Your task to perform on an android device: Empty the shopping cart on amazon. Image 0: 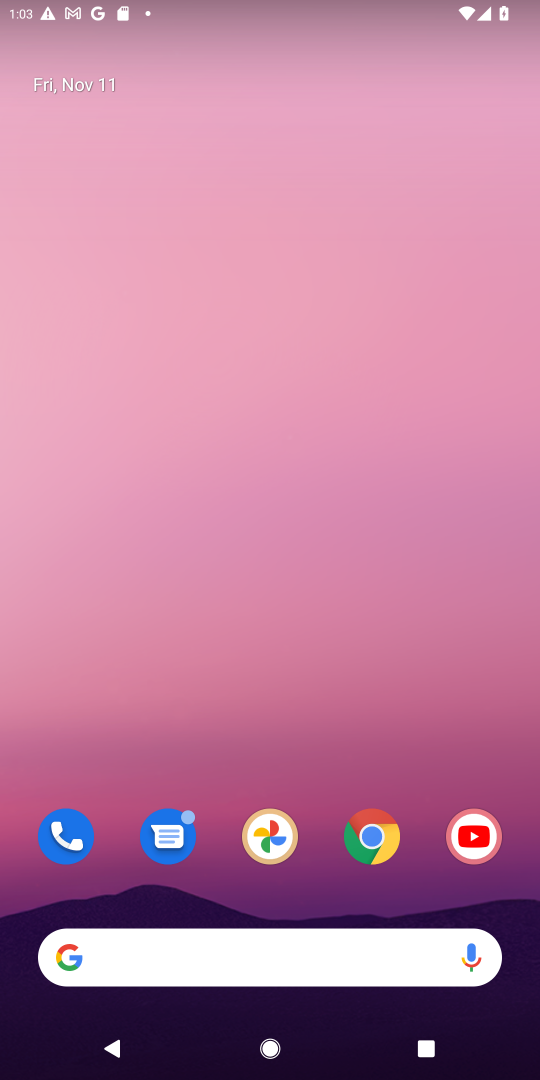
Step 0: click (254, 943)
Your task to perform on an android device: Empty the shopping cart on amazon. Image 1: 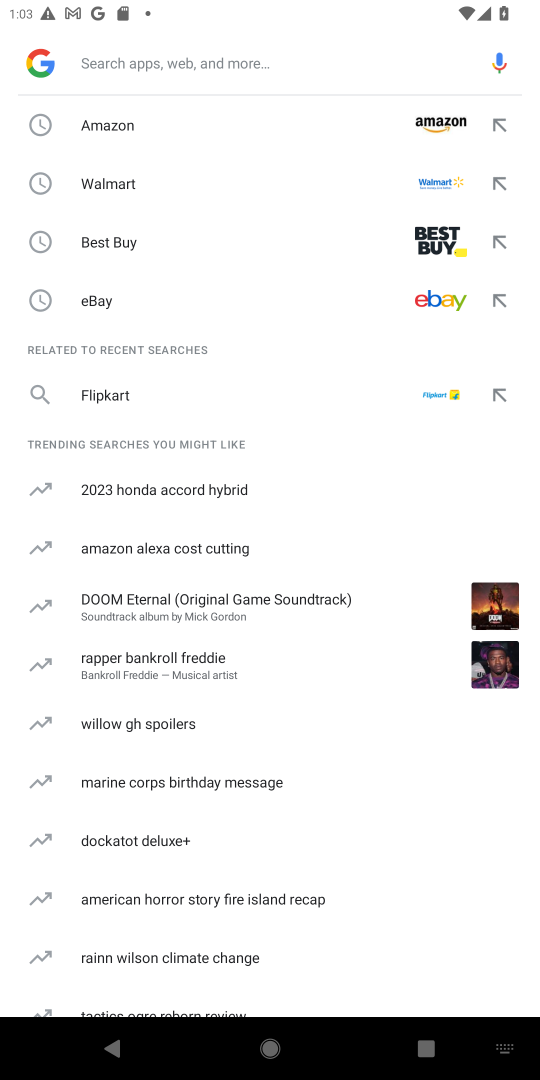
Step 1: click (233, 138)
Your task to perform on an android device: Empty the shopping cart on amazon. Image 2: 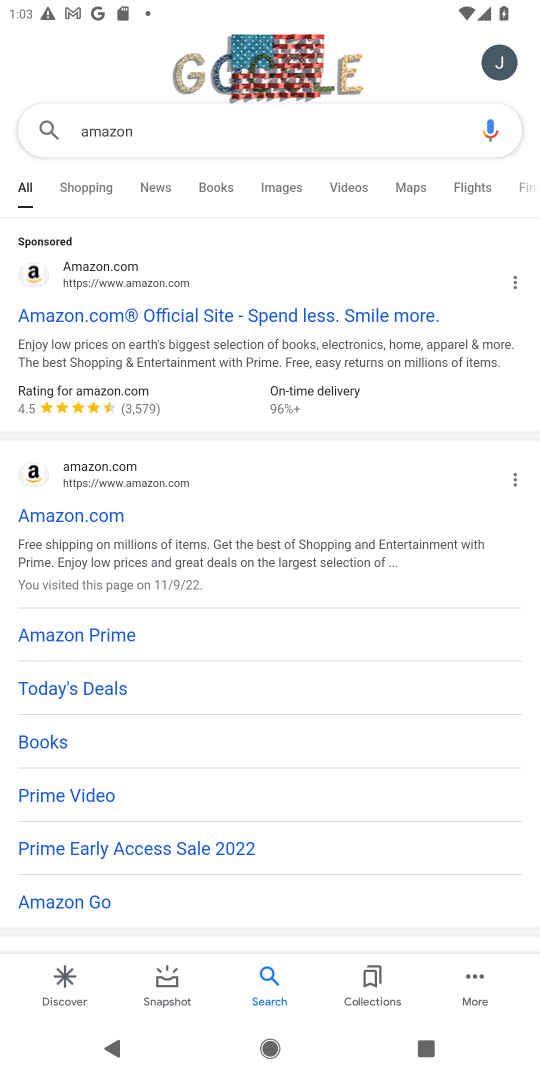
Step 2: click (107, 277)
Your task to perform on an android device: Empty the shopping cart on amazon. Image 3: 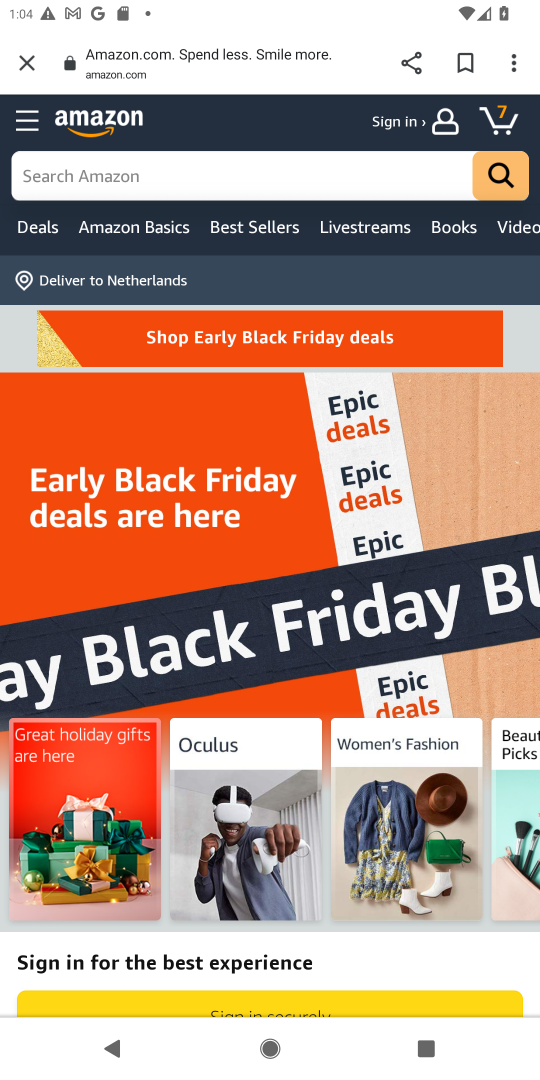
Step 3: click (498, 125)
Your task to perform on an android device: Empty the shopping cart on amazon. Image 4: 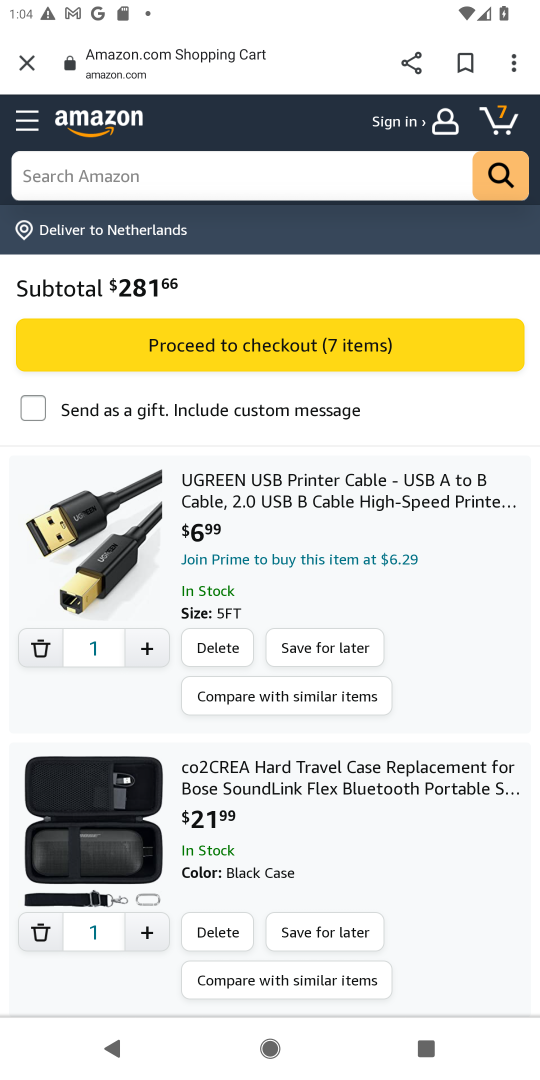
Step 4: click (35, 647)
Your task to perform on an android device: Empty the shopping cart on amazon. Image 5: 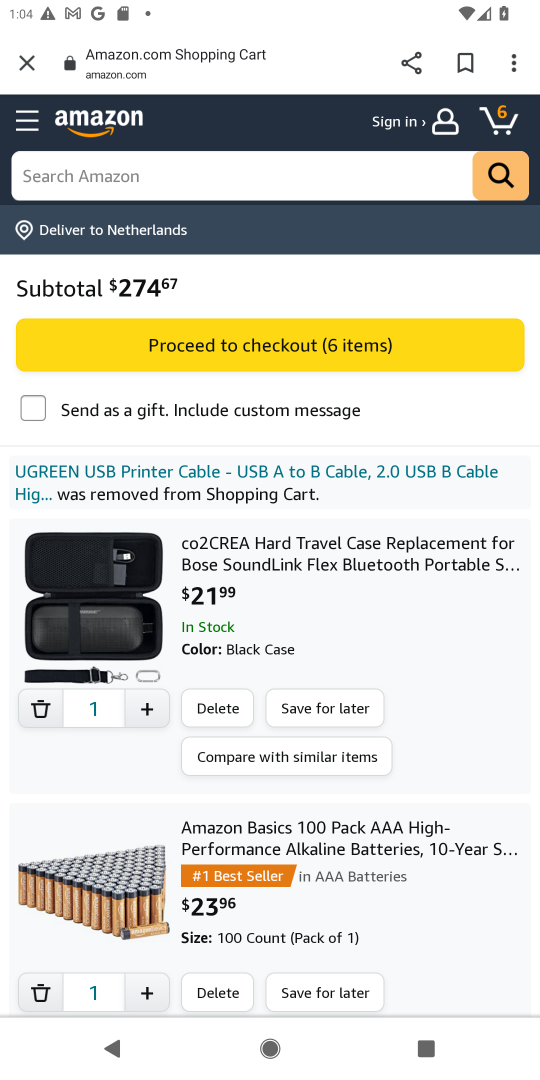
Step 5: click (36, 711)
Your task to perform on an android device: Empty the shopping cart on amazon. Image 6: 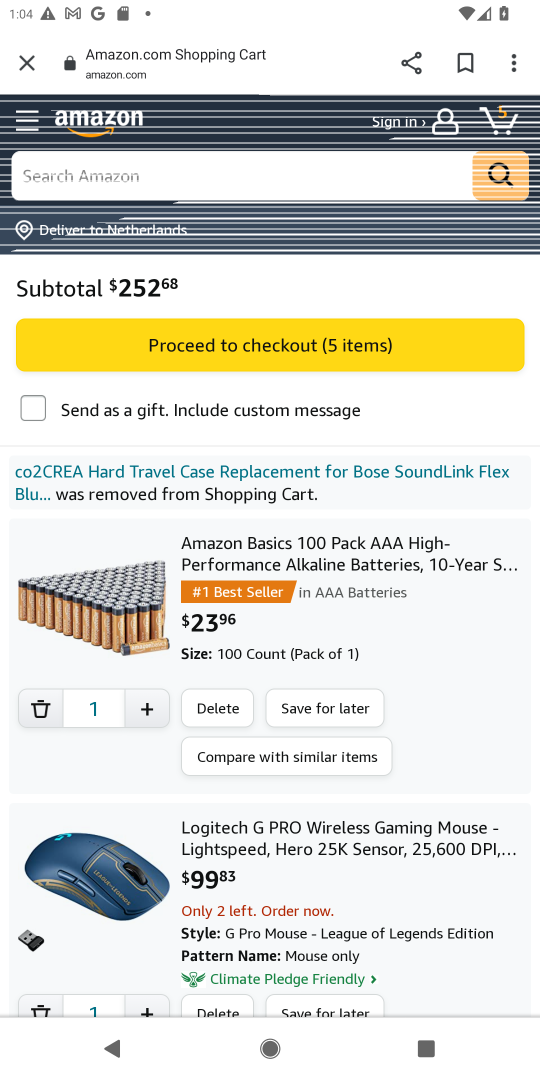
Step 6: click (39, 711)
Your task to perform on an android device: Empty the shopping cart on amazon. Image 7: 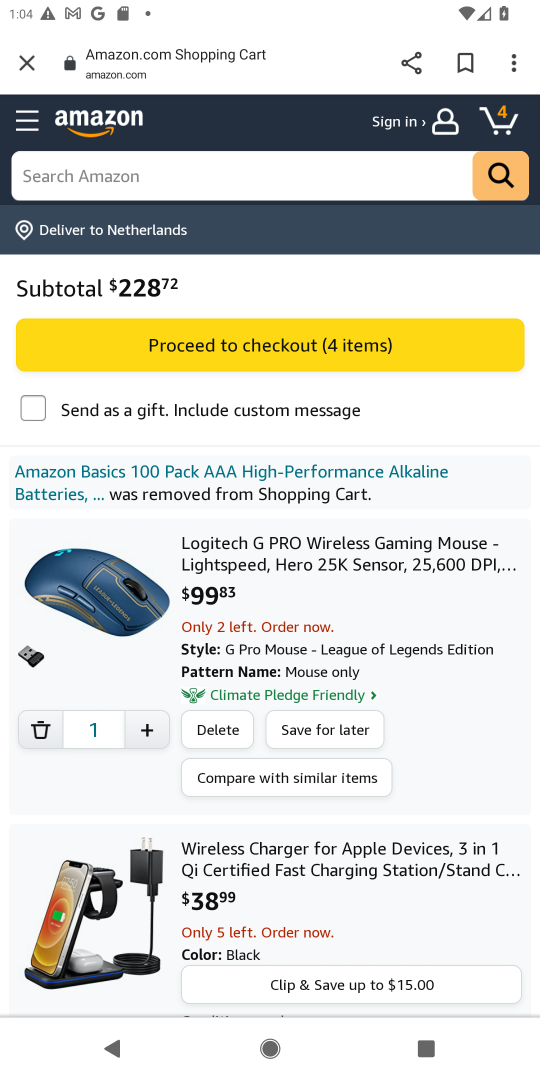
Step 7: click (30, 733)
Your task to perform on an android device: Empty the shopping cart on amazon. Image 8: 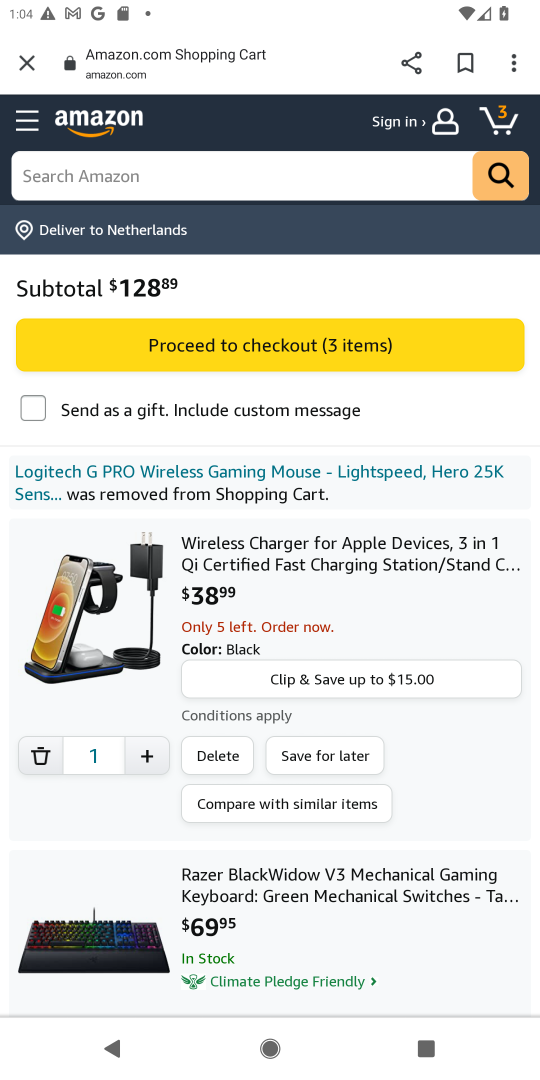
Step 8: click (45, 751)
Your task to perform on an android device: Empty the shopping cart on amazon. Image 9: 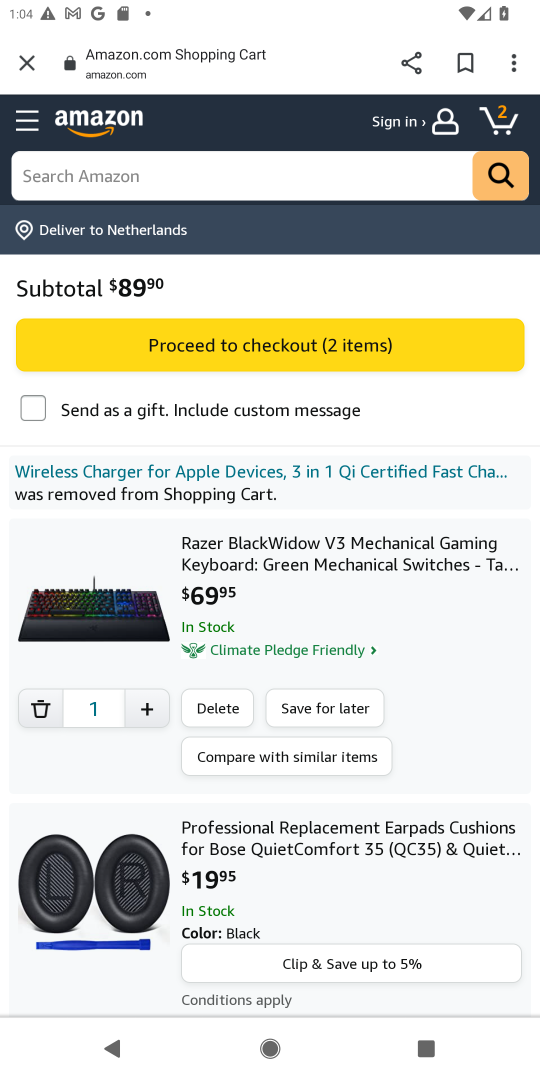
Step 9: click (45, 706)
Your task to perform on an android device: Empty the shopping cart on amazon. Image 10: 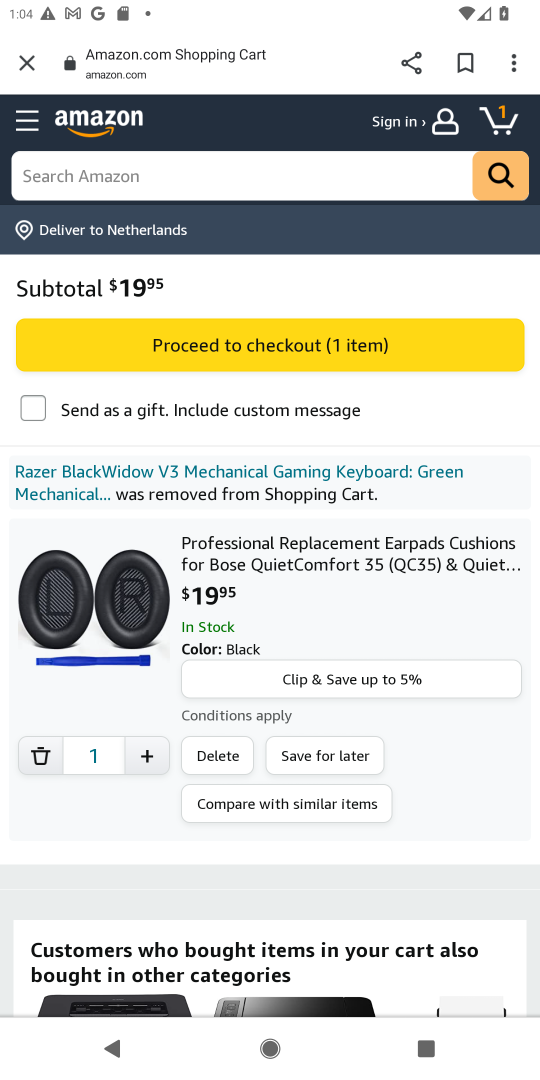
Step 10: click (34, 747)
Your task to perform on an android device: Empty the shopping cart on amazon. Image 11: 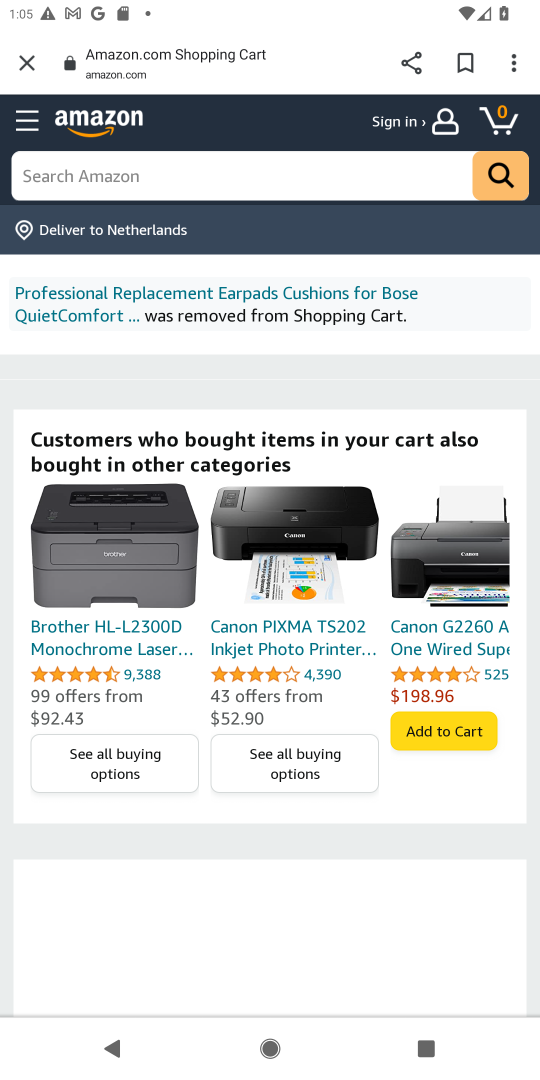
Step 11: task complete